Your task to perform on an android device: Go to Amazon Image 0: 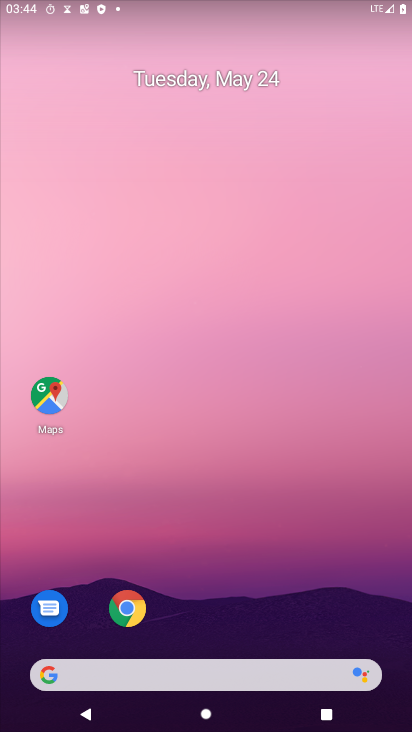
Step 0: click (131, 613)
Your task to perform on an android device: Go to Amazon Image 1: 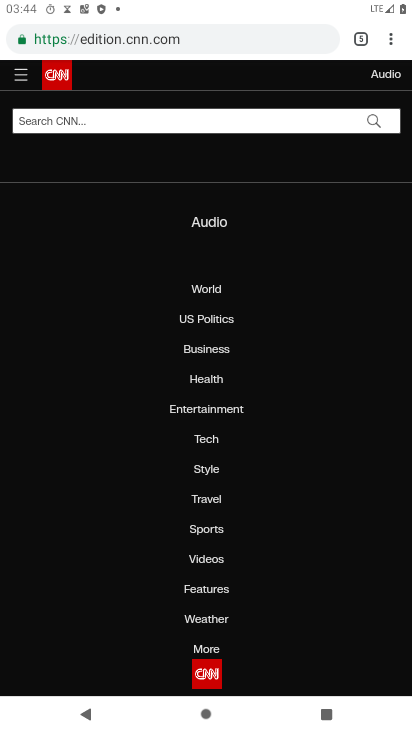
Step 1: click (360, 33)
Your task to perform on an android device: Go to Amazon Image 2: 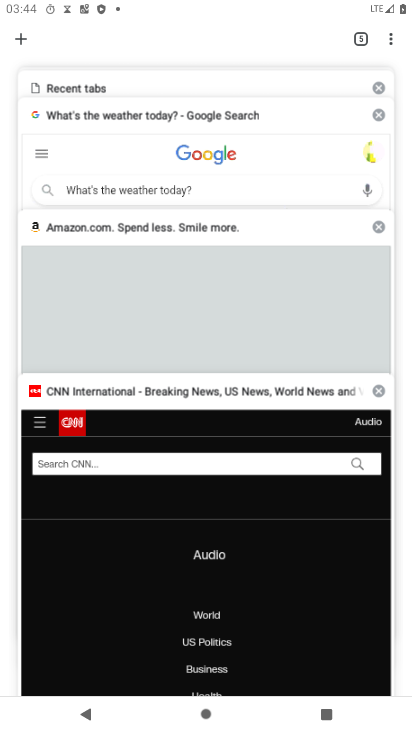
Step 2: click (25, 41)
Your task to perform on an android device: Go to Amazon Image 3: 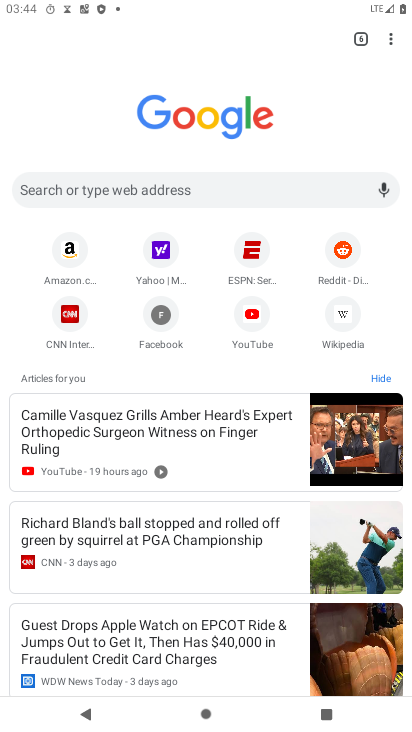
Step 3: click (68, 256)
Your task to perform on an android device: Go to Amazon Image 4: 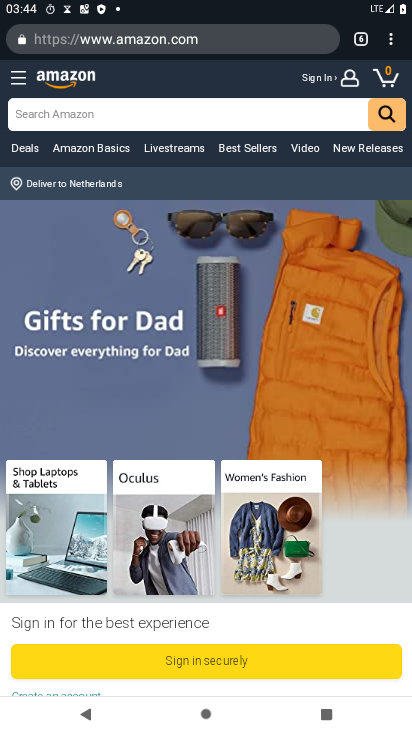
Step 4: task complete